Your task to perform on an android device: Go to Google Image 0: 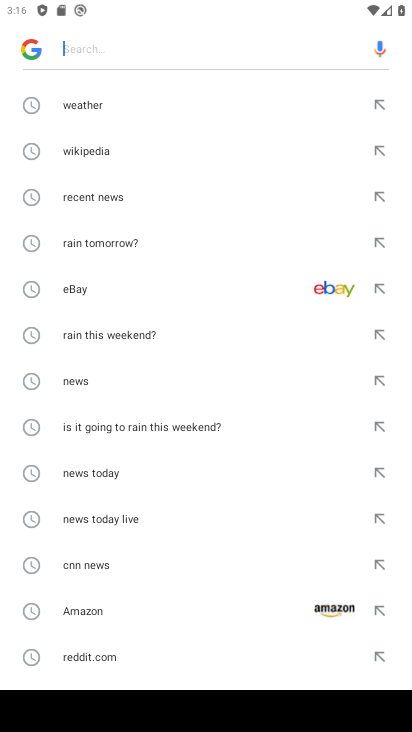
Step 0: press home button
Your task to perform on an android device: Go to Google Image 1: 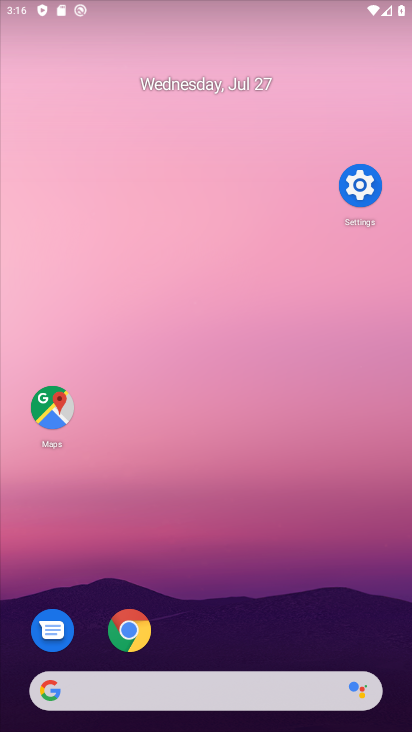
Step 1: drag from (254, 560) to (291, 20)
Your task to perform on an android device: Go to Google Image 2: 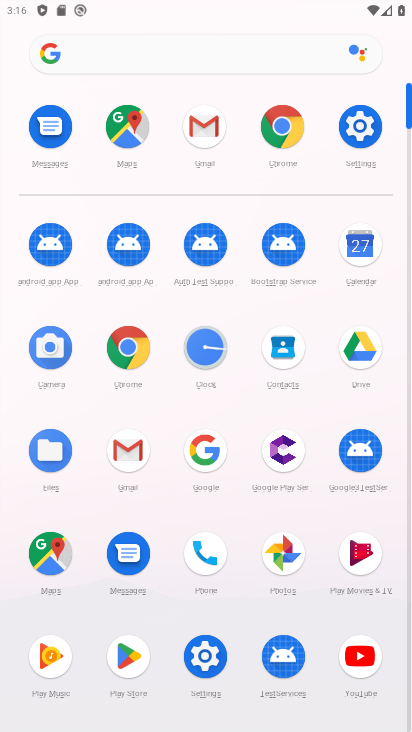
Step 2: click (207, 447)
Your task to perform on an android device: Go to Google Image 3: 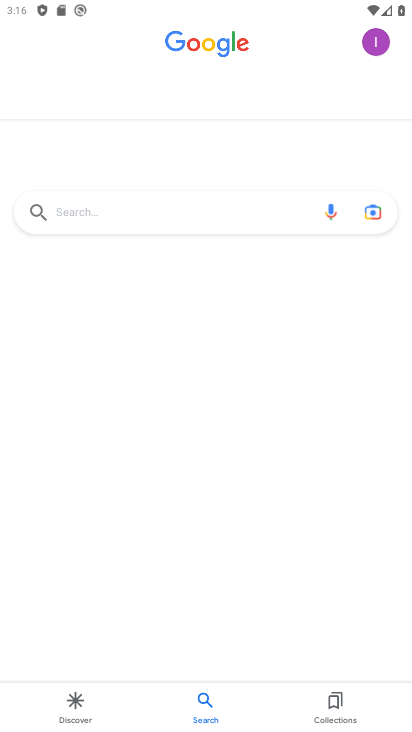
Step 3: click (196, 40)
Your task to perform on an android device: Go to Google Image 4: 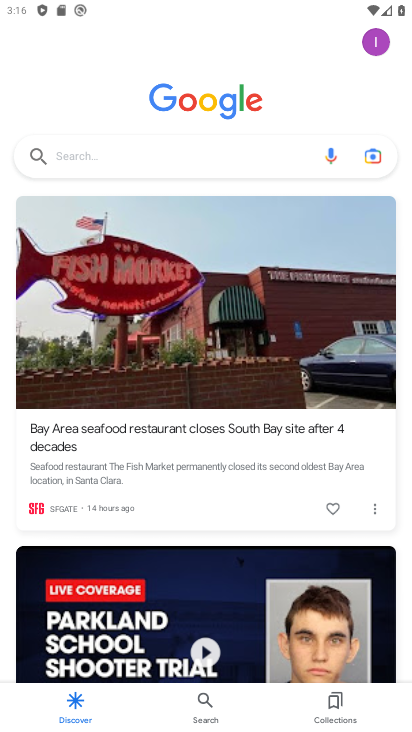
Step 4: task complete